Your task to perform on an android device: Open Google Chrome and click the shortcut for Amazon.com Image 0: 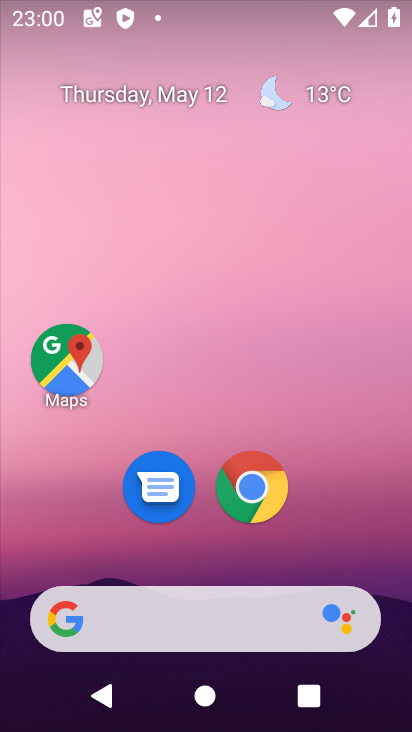
Step 0: click (239, 469)
Your task to perform on an android device: Open Google Chrome and click the shortcut for Amazon.com Image 1: 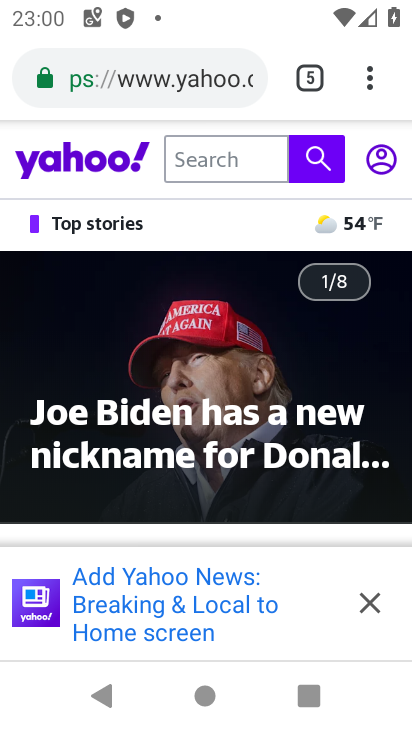
Step 1: click (319, 88)
Your task to perform on an android device: Open Google Chrome and click the shortcut for Amazon.com Image 2: 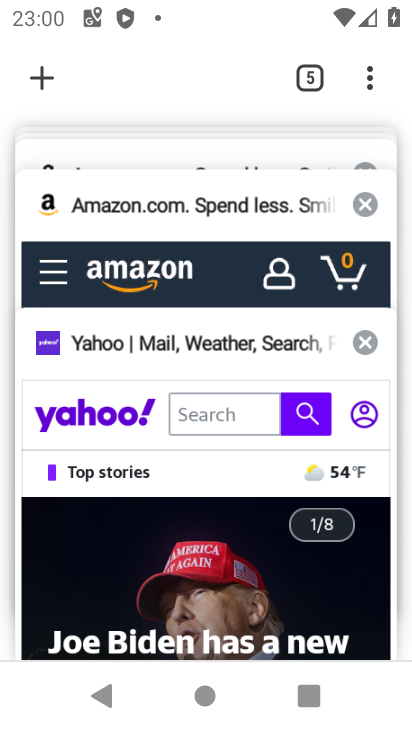
Step 2: click (63, 100)
Your task to perform on an android device: Open Google Chrome and click the shortcut for Amazon.com Image 3: 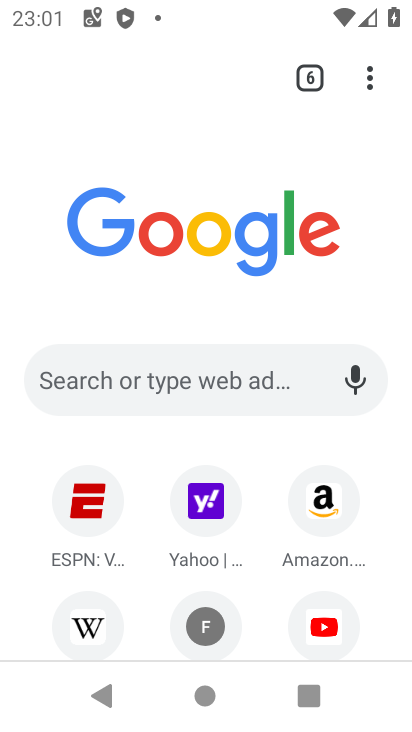
Step 3: click (316, 510)
Your task to perform on an android device: Open Google Chrome and click the shortcut for Amazon.com Image 4: 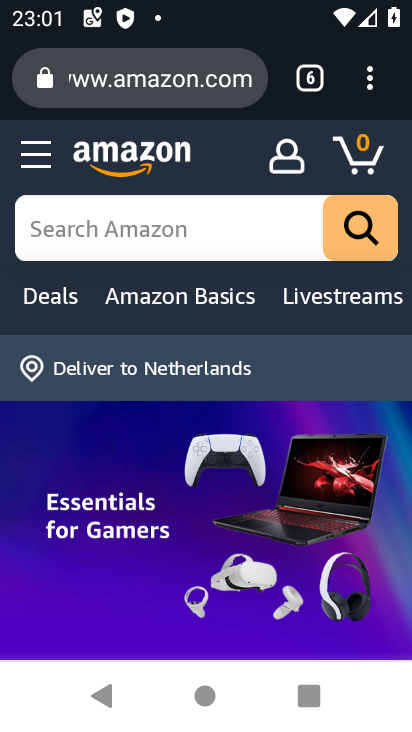
Step 4: task complete